Your task to perform on an android device: turn off data saver in the chrome app Image 0: 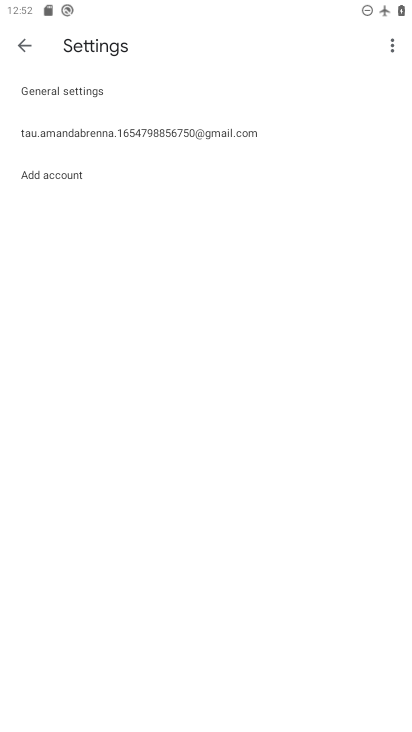
Step 0: press home button
Your task to perform on an android device: turn off data saver in the chrome app Image 1: 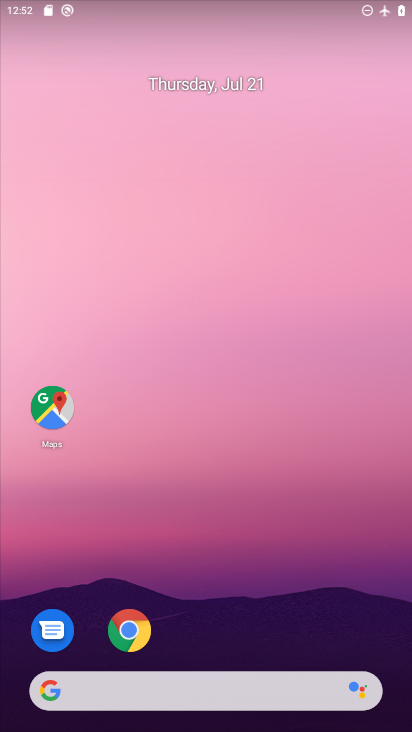
Step 1: click (131, 629)
Your task to perform on an android device: turn off data saver in the chrome app Image 2: 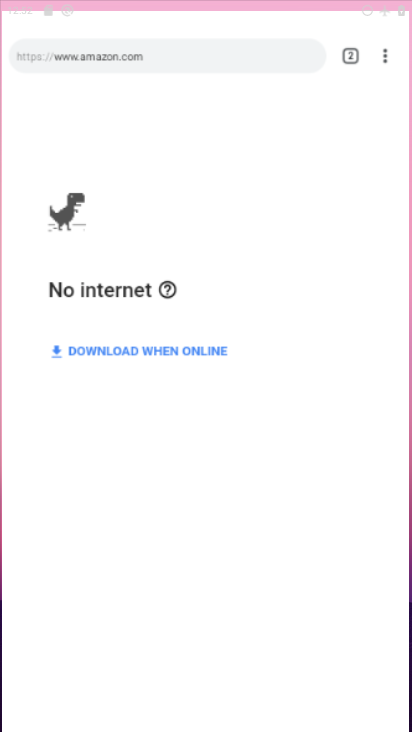
Step 2: click (131, 629)
Your task to perform on an android device: turn off data saver in the chrome app Image 3: 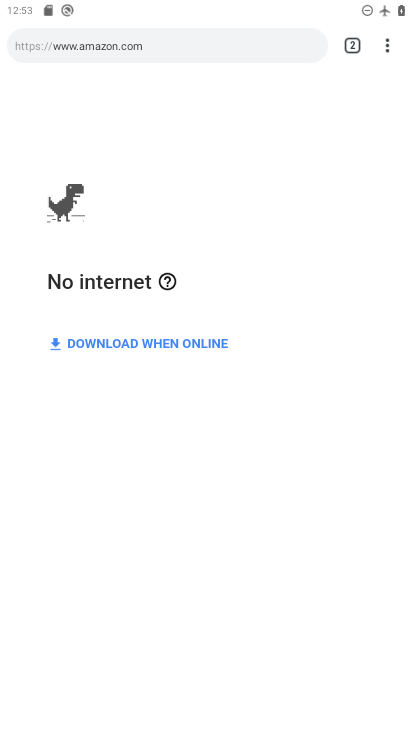
Step 3: click (385, 40)
Your task to perform on an android device: turn off data saver in the chrome app Image 4: 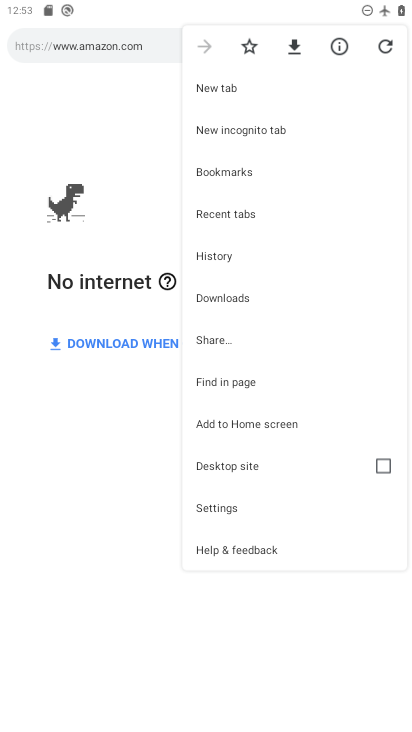
Step 4: click (225, 502)
Your task to perform on an android device: turn off data saver in the chrome app Image 5: 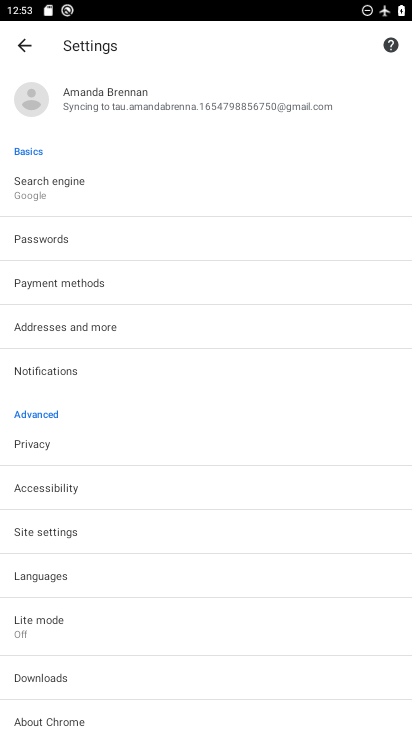
Step 5: click (71, 619)
Your task to perform on an android device: turn off data saver in the chrome app Image 6: 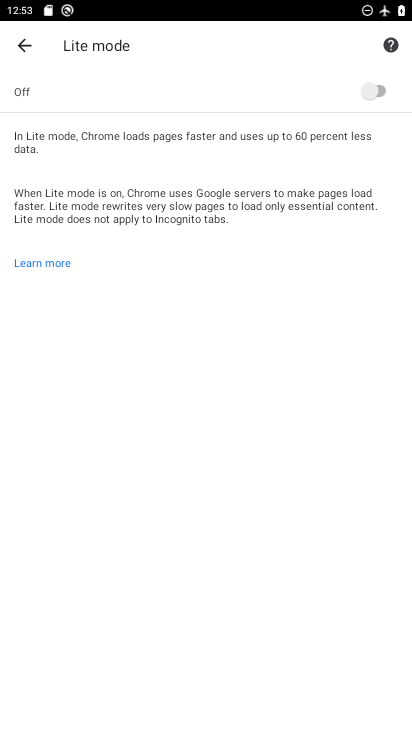
Step 6: task complete